Your task to perform on an android device: Toggle the flashlight Image 0: 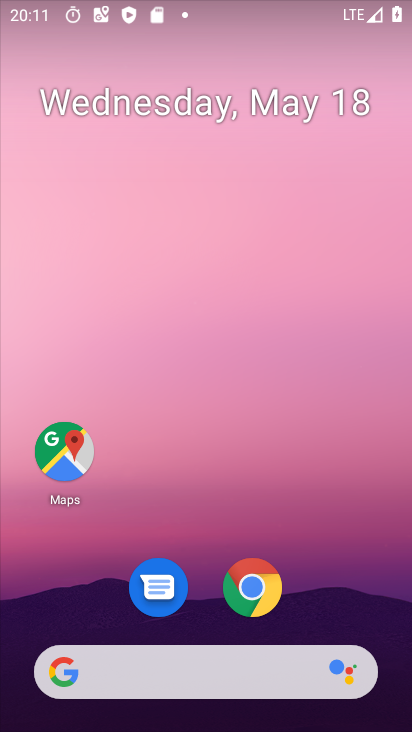
Step 0: drag from (163, 623) to (194, 0)
Your task to perform on an android device: Toggle the flashlight Image 1: 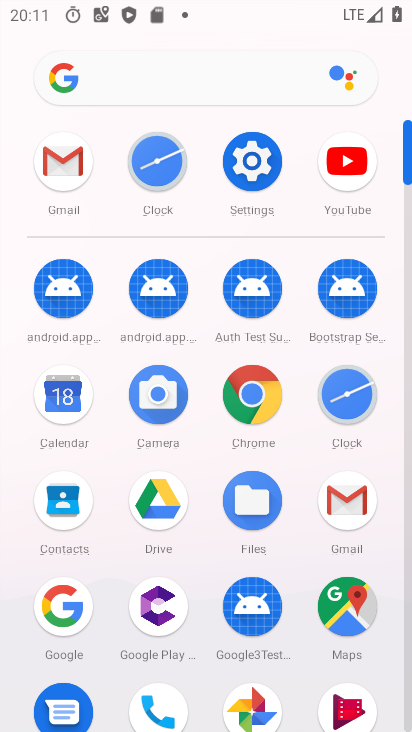
Step 1: click (254, 159)
Your task to perform on an android device: Toggle the flashlight Image 2: 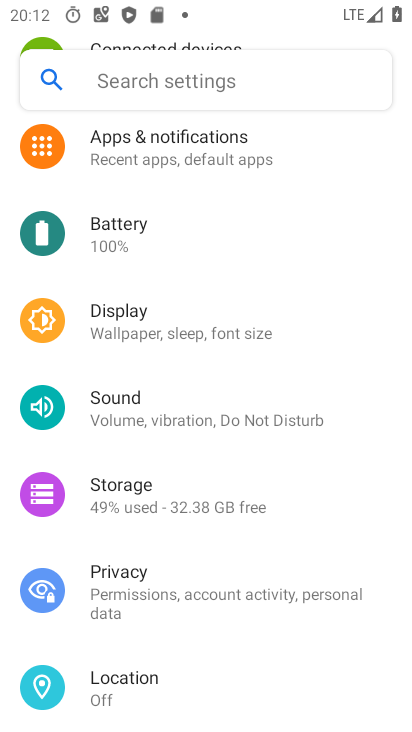
Step 2: task complete